Your task to perform on an android device: turn on data saver in the chrome app Image 0: 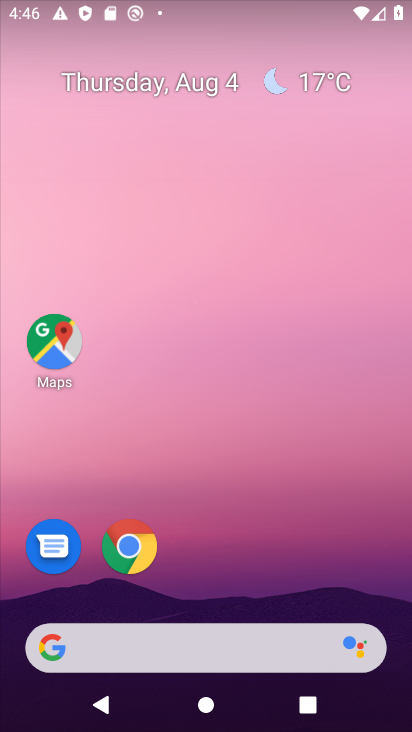
Step 0: click (118, 554)
Your task to perform on an android device: turn on data saver in the chrome app Image 1: 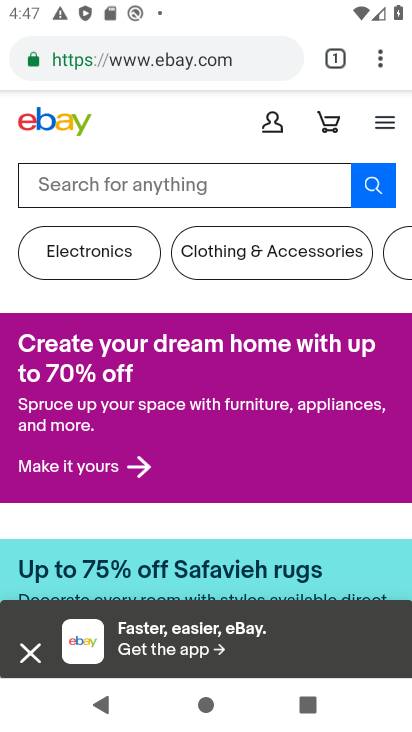
Step 1: click (377, 57)
Your task to perform on an android device: turn on data saver in the chrome app Image 2: 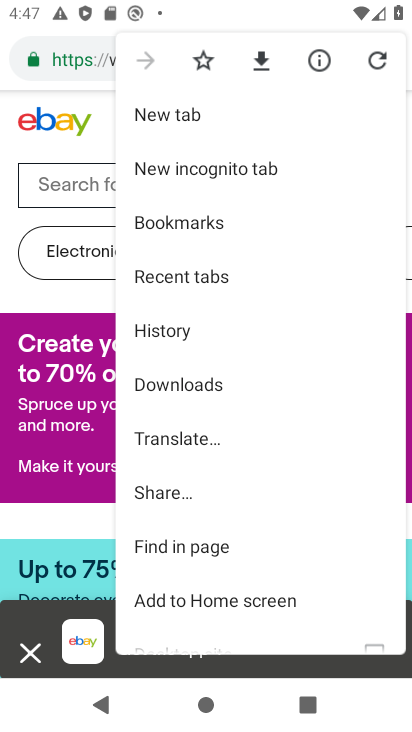
Step 2: drag from (183, 463) to (191, 277)
Your task to perform on an android device: turn on data saver in the chrome app Image 3: 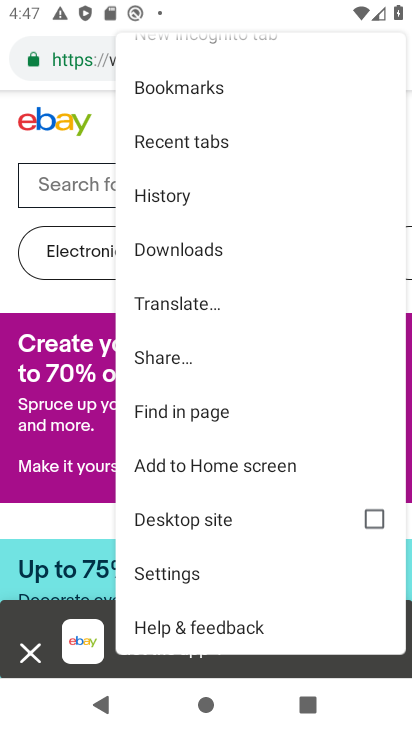
Step 3: click (177, 568)
Your task to perform on an android device: turn on data saver in the chrome app Image 4: 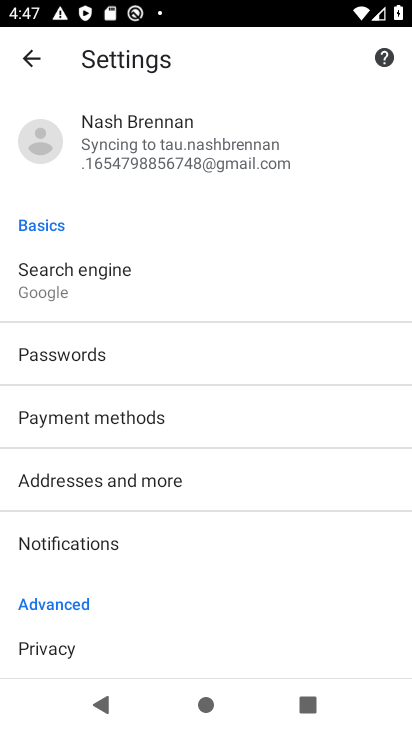
Step 4: drag from (117, 487) to (120, 184)
Your task to perform on an android device: turn on data saver in the chrome app Image 5: 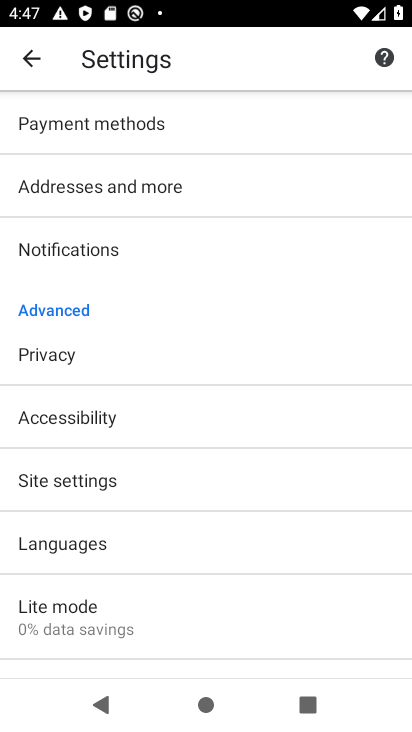
Step 5: click (75, 616)
Your task to perform on an android device: turn on data saver in the chrome app Image 6: 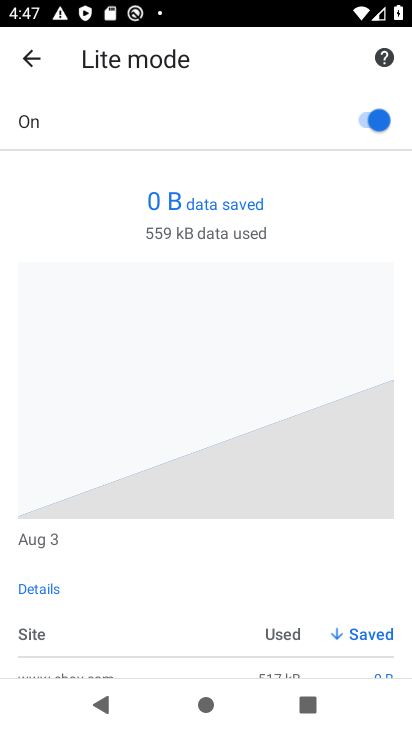
Step 6: task complete